Your task to perform on an android device: change the clock display to digital Image 0: 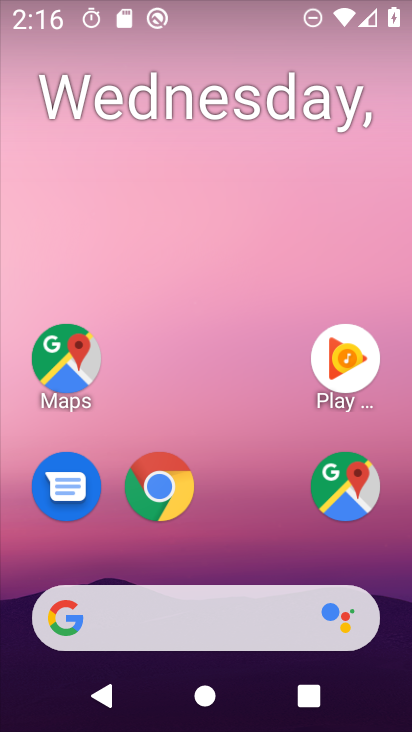
Step 0: drag from (245, 552) to (247, 127)
Your task to perform on an android device: change the clock display to digital Image 1: 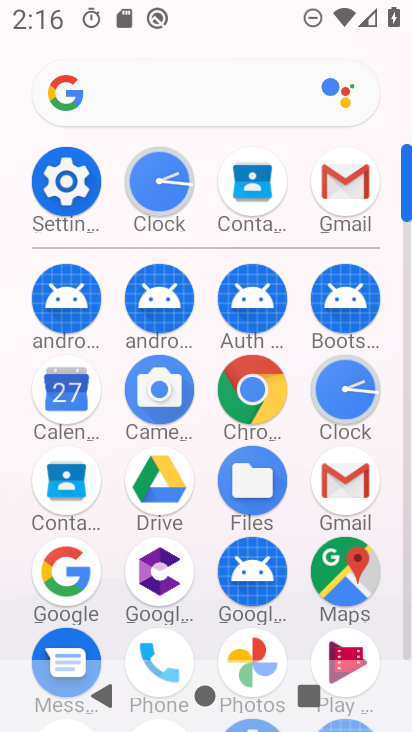
Step 1: click (343, 395)
Your task to perform on an android device: change the clock display to digital Image 2: 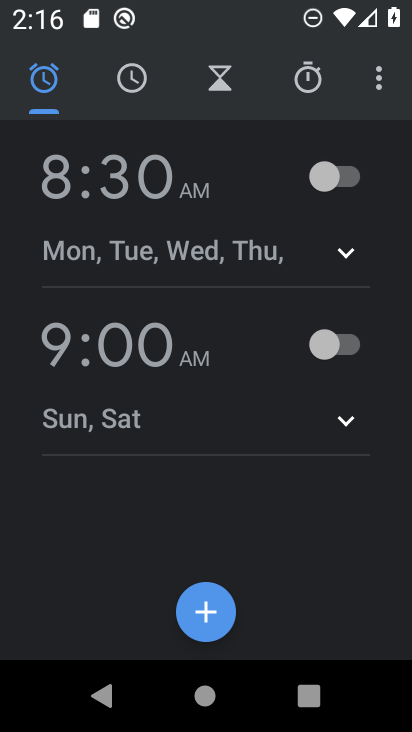
Step 2: click (383, 93)
Your task to perform on an android device: change the clock display to digital Image 3: 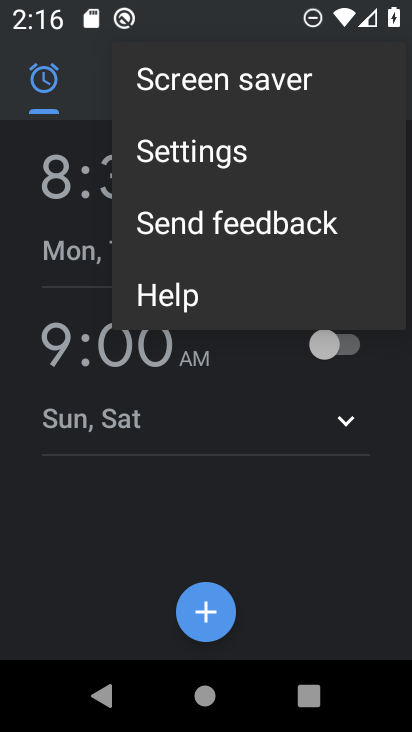
Step 3: click (291, 150)
Your task to perform on an android device: change the clock display to digital Image 4: 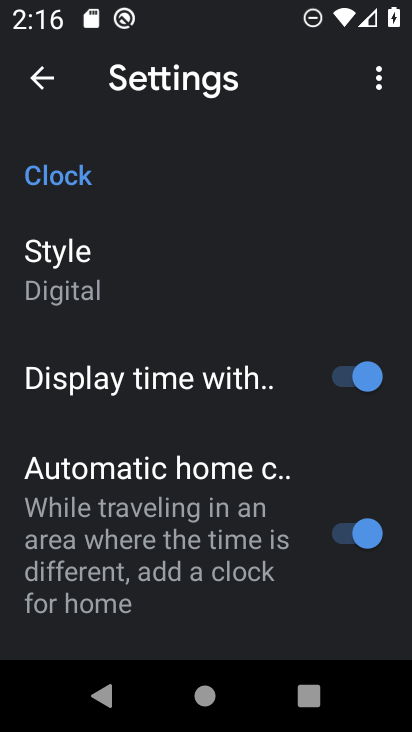
Step 4: task complete